Your task to perform on an android device: turn on notifications settings in the gmail app Image 0: 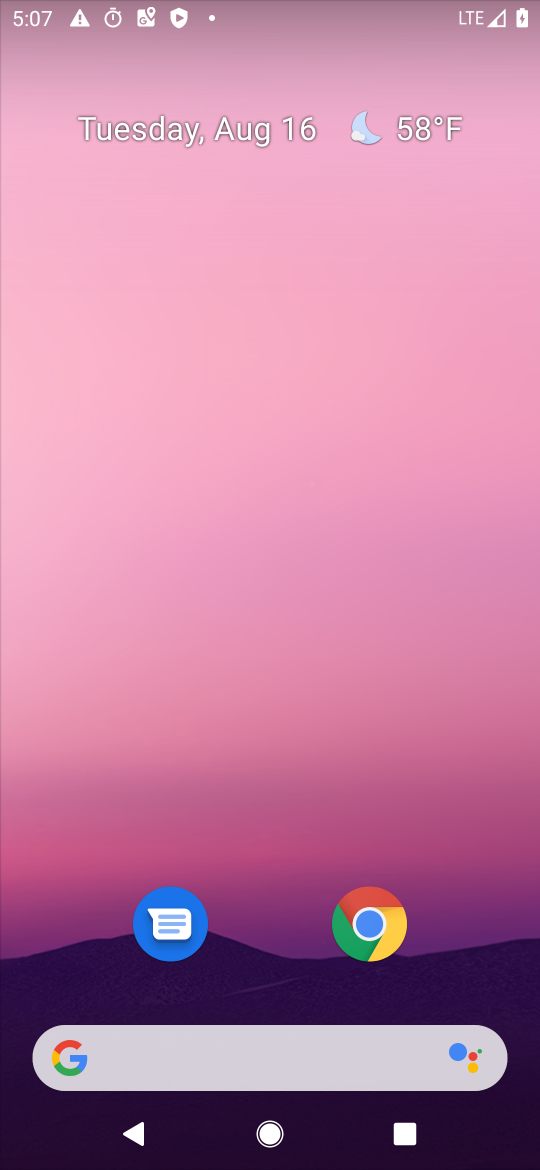
Step 0: drag from (238, 973) to (322, 321)
Your task to perform on an android device: turn on notifications settings in the gmail app Image 1: 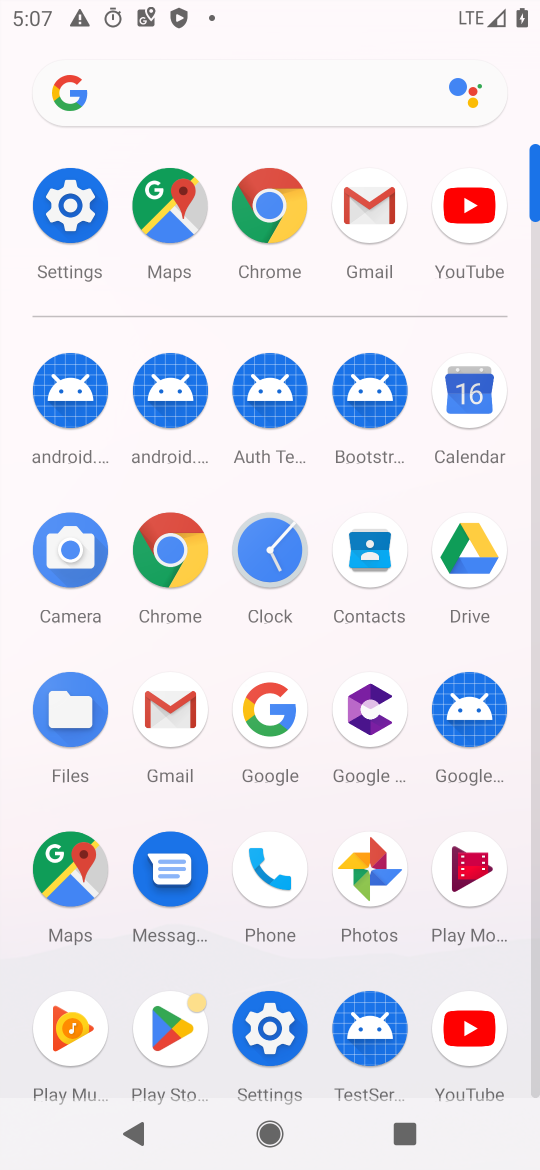
Step 1: click (376, 212)
Your task to perform on an android device: turn on notifications settings in the gmail app Image 2: 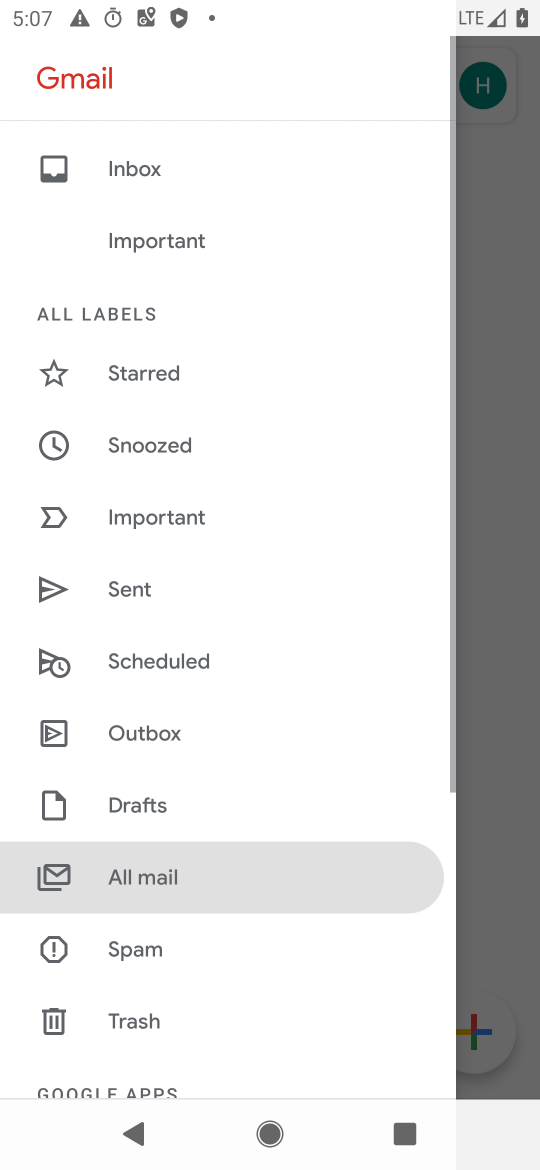
Step 2: click (249, 387)
Your task to perform on an android device: turn on notifications settings in the gmail app Image 3: 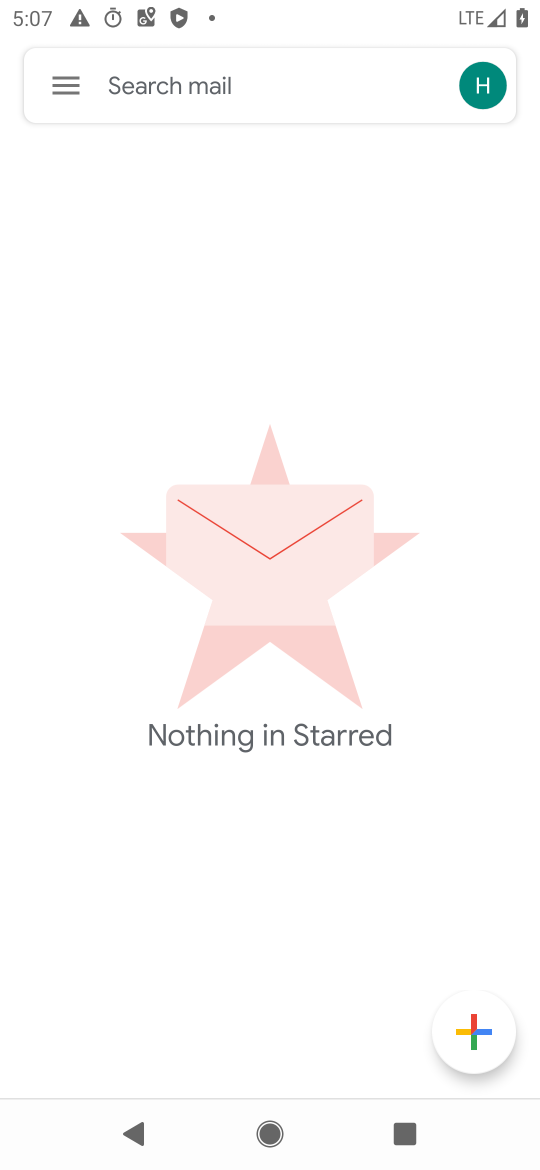
Step 3: click (76, 73)
Your task to perform on an android device: turn on notifications settings in the gmail app Image 4: 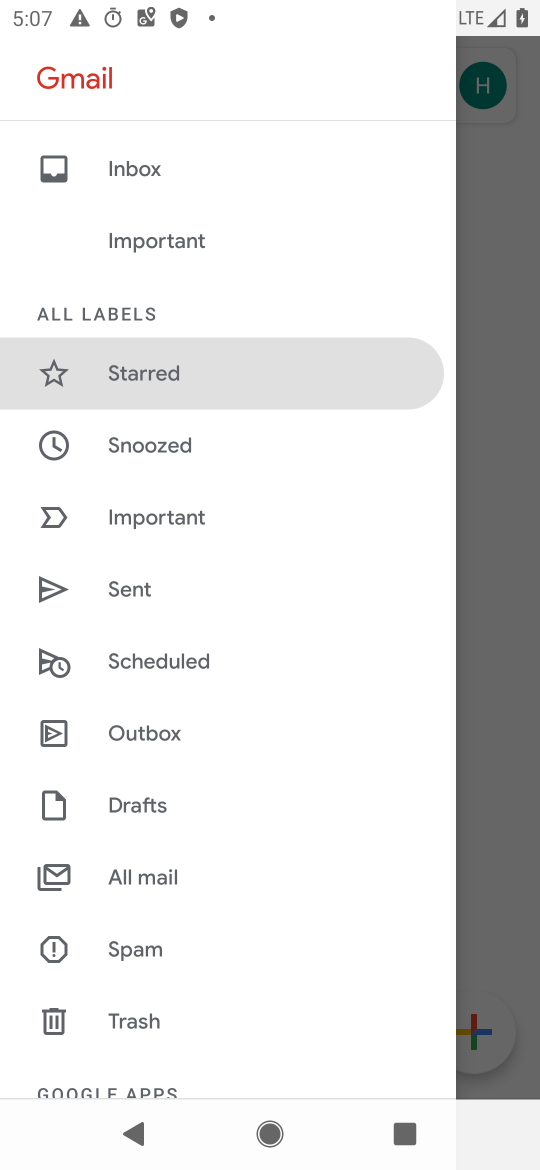
Step 4: drag from (191, 1046) to (287, 232)
Your task to perform on an android device: turn on notifications settings in the gmail app Image 5: 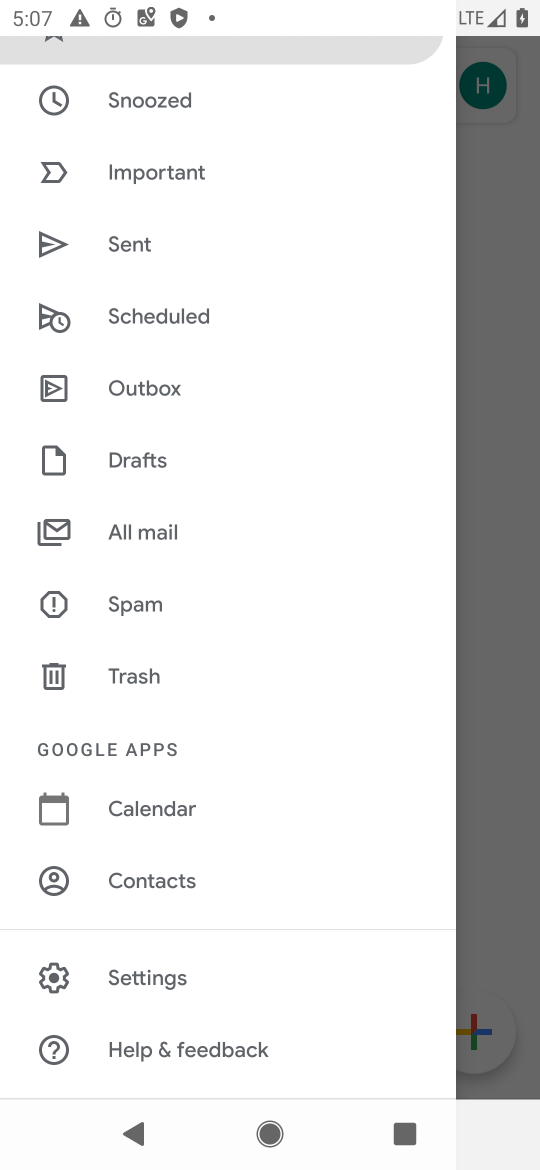
Step 5: click (163, 964)
Your task to perform on an android device: turn on notifications settings in the gmail app Image 6: 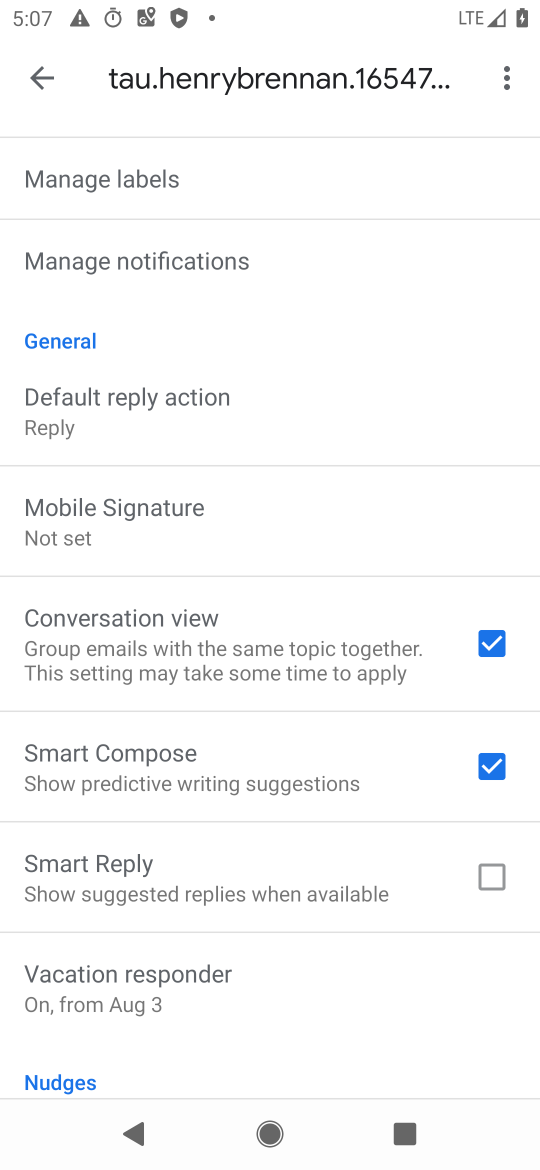
Step 6: drag from (214, 251) to (182, 980)
Your task to perform on an android device: turn on notifications settings in the gmail app Image 7: 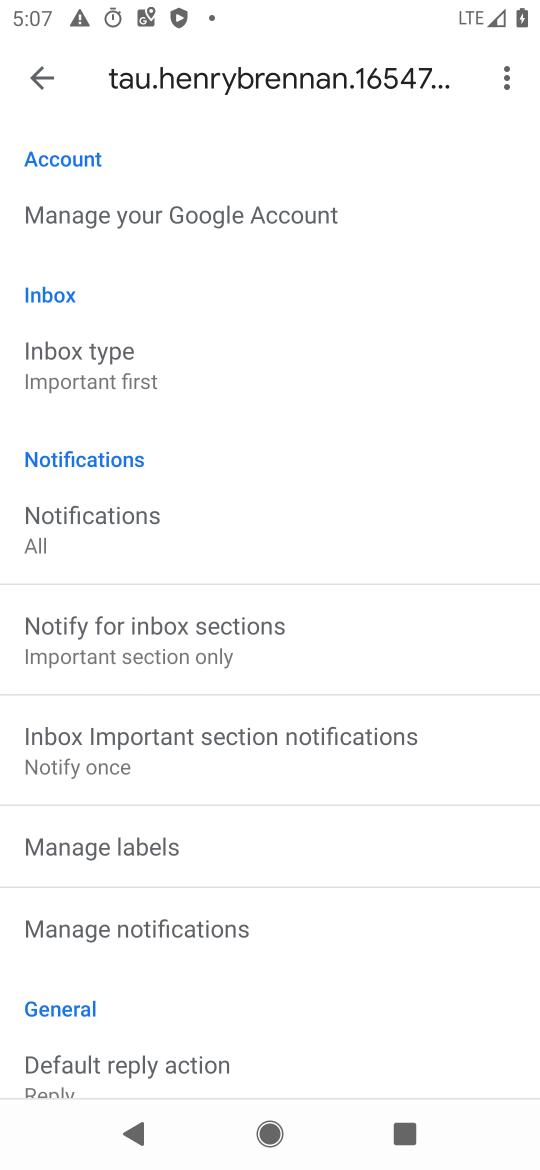
Step 7: click (198, 529)
Your task to perform on an android device: turn on notifications settings in the gmail app Image 8: 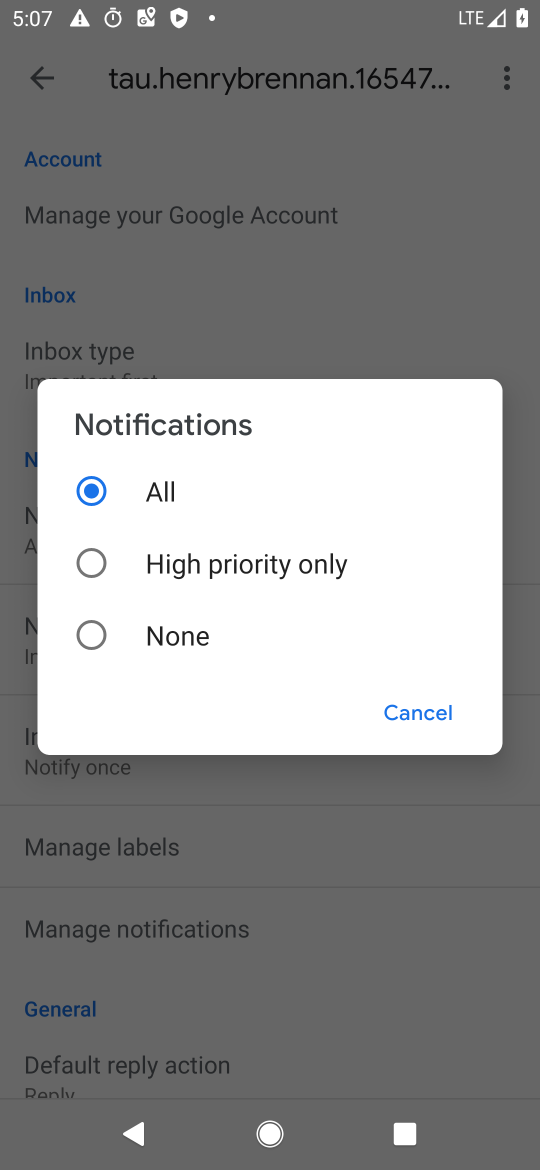
Step 8: task complete